Your task to perform on an android device: Search for the best custom wallets on Etsy. Image 0: 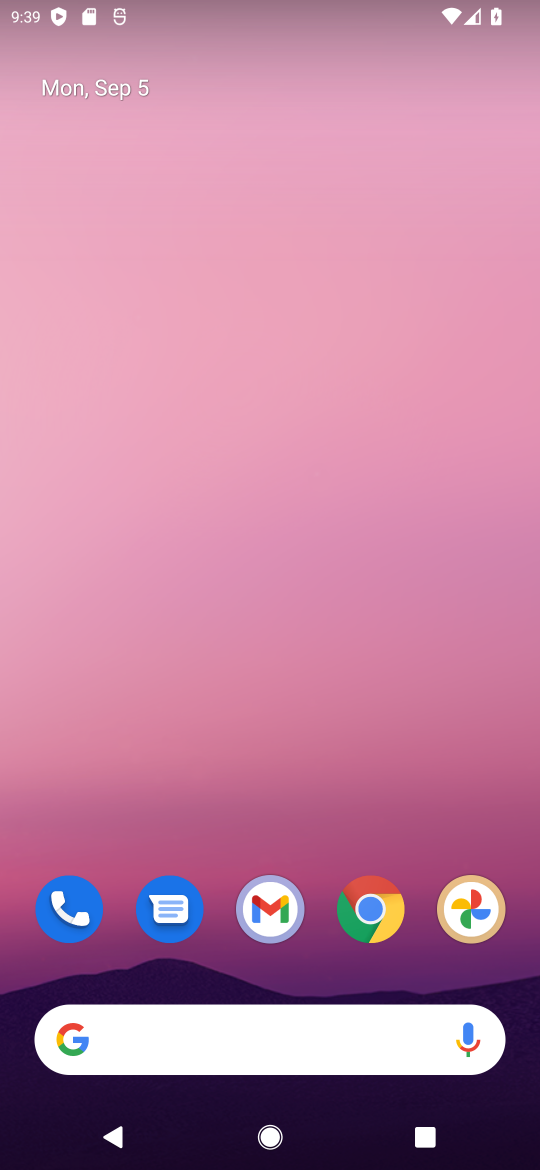
Step 0: click (363, 890)
Your task to perform on an android device: Search for the best custom wallets on Etsy. Image 1: 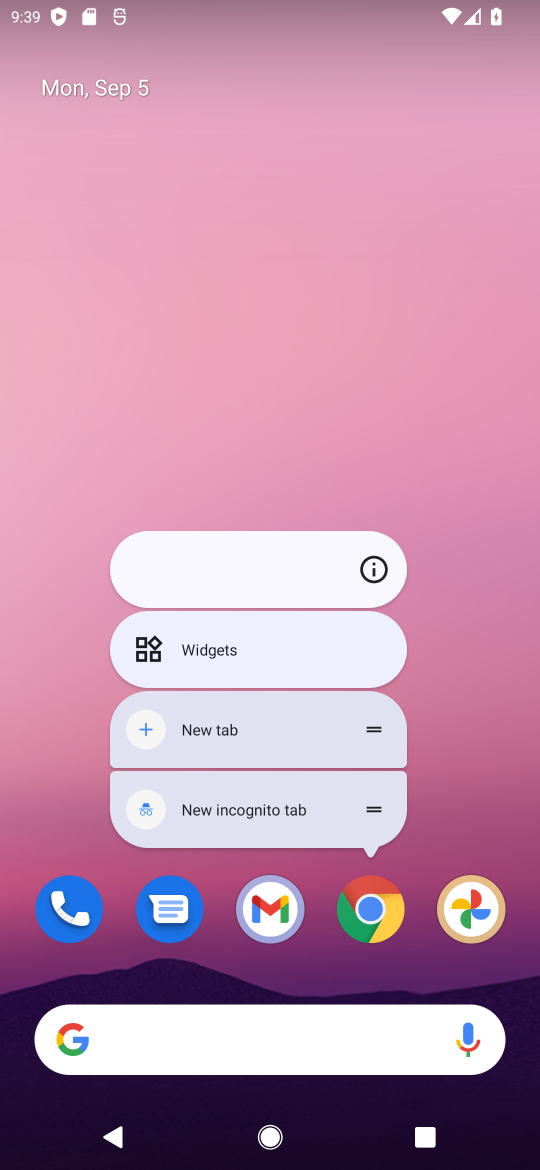
Step 1: task complete